Your task to perform on an android device: Open Youtube and go to the subscriptions tab Image 0: 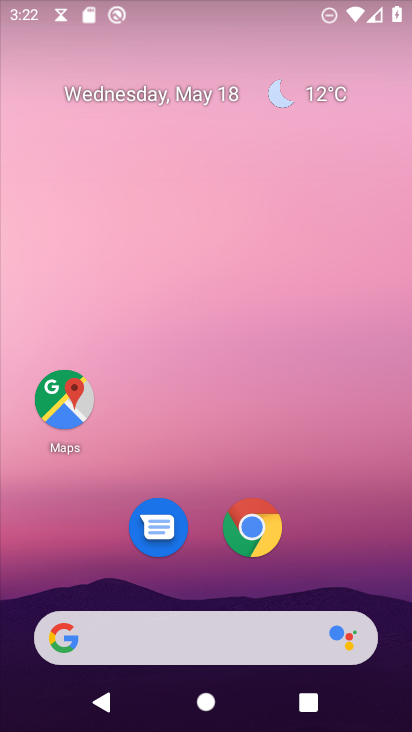
Step 0: click (209, 6)
Your task to perform on an android device: Open Youtube and go to the subscriptions tab Image 1: 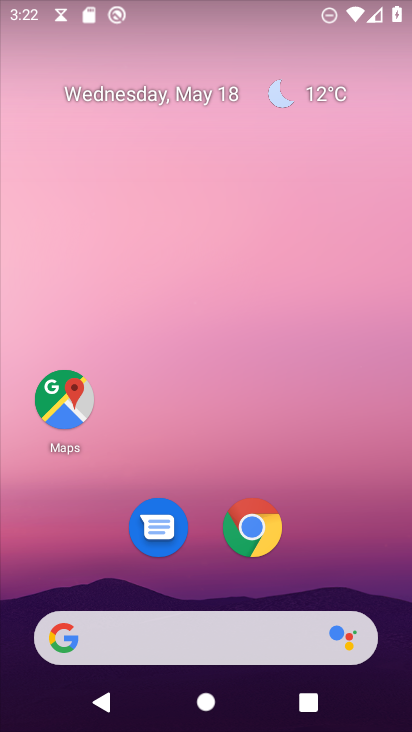
Step 1: drag from (344, 580) to (207, 65)
Your task to perform on an android device: Open Youtube and go to the subscriptions tab Image 2: 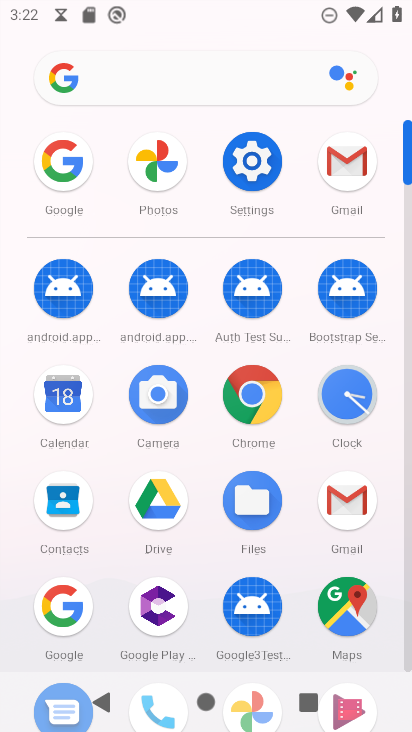
Step 2: drag from (293, 641) to (288, 400)
Your task to perform on an android device: Open Youtube and go to the subscriptions tab Image 3: 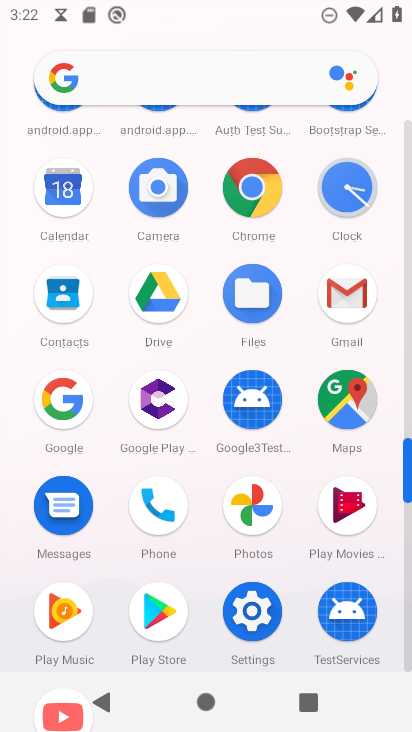
Step 3: drag from (216, 640) to (198, 365)
Your task to perform on an android device: Open Youtube and go to the subscriptions tab Image 4: 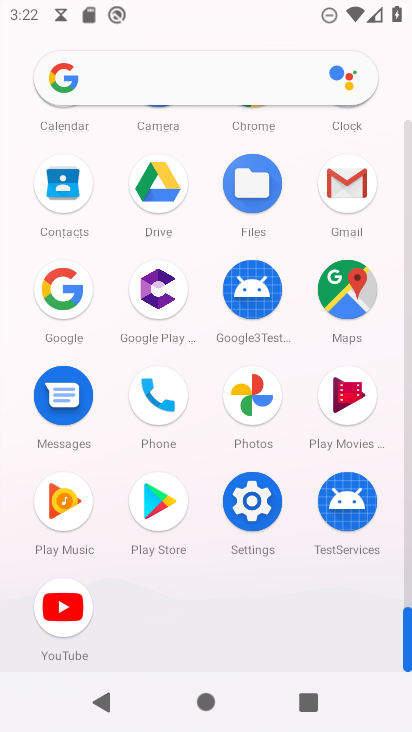
Step 4: click (62, 610)
Your task to perform on an android device: Open Youtube and go to the subscriptions tab Image 5: 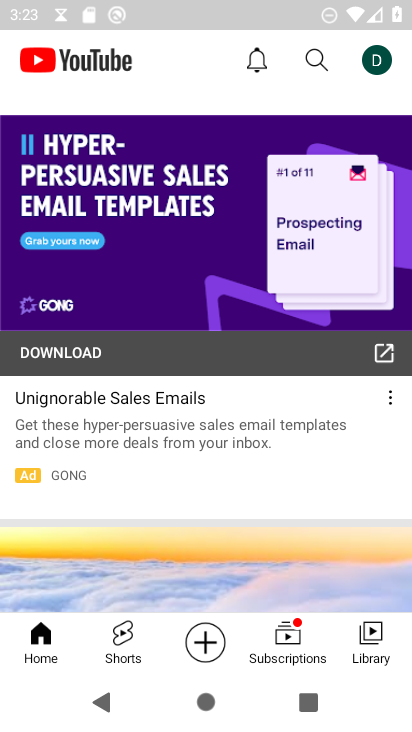
Step 5: click (286, 650)
Your task to perform on an android device: Open Youtube and go to the subscriptions tab Image 6: 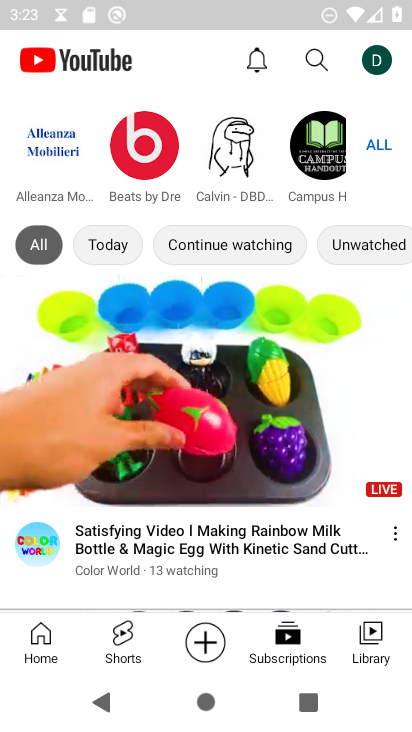
Step 6: task complete